Your task to perform on an android device: Search for Italian restaurants on Maps Image 0: 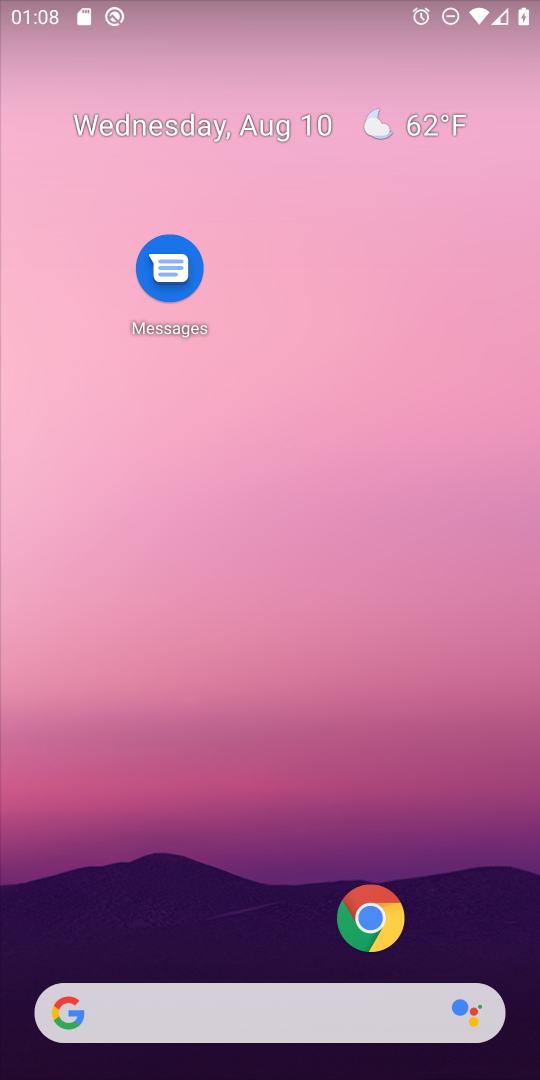
Step 0: drag from (273, 822) to (331, 184)
Your task to perform on an android device: Search for Italian restaurants on Maps Image 1: 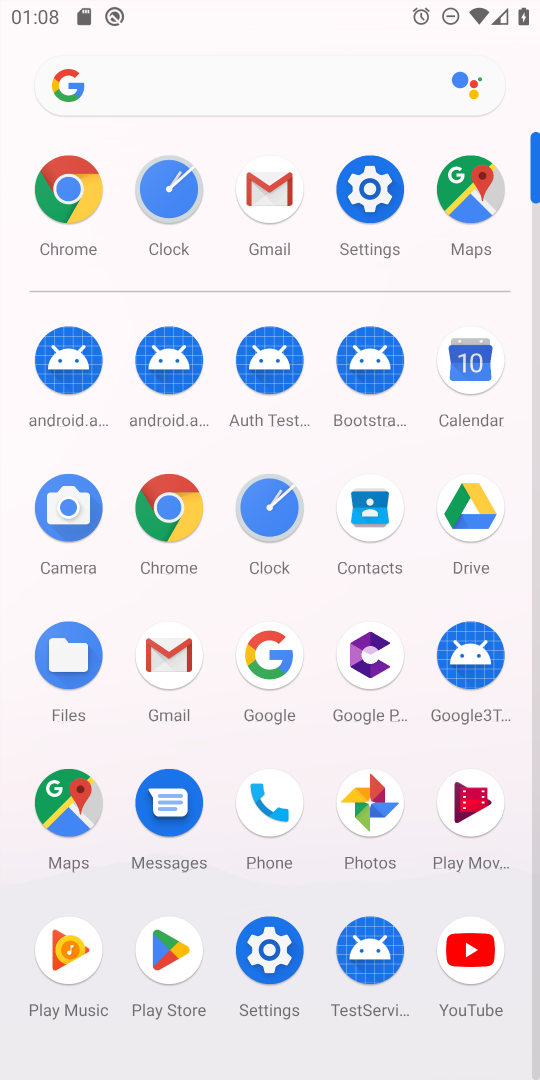
Step 1: click (75, 807)
Your task to perform on an android device: Search for Italian restaurants on Maps Image 2: 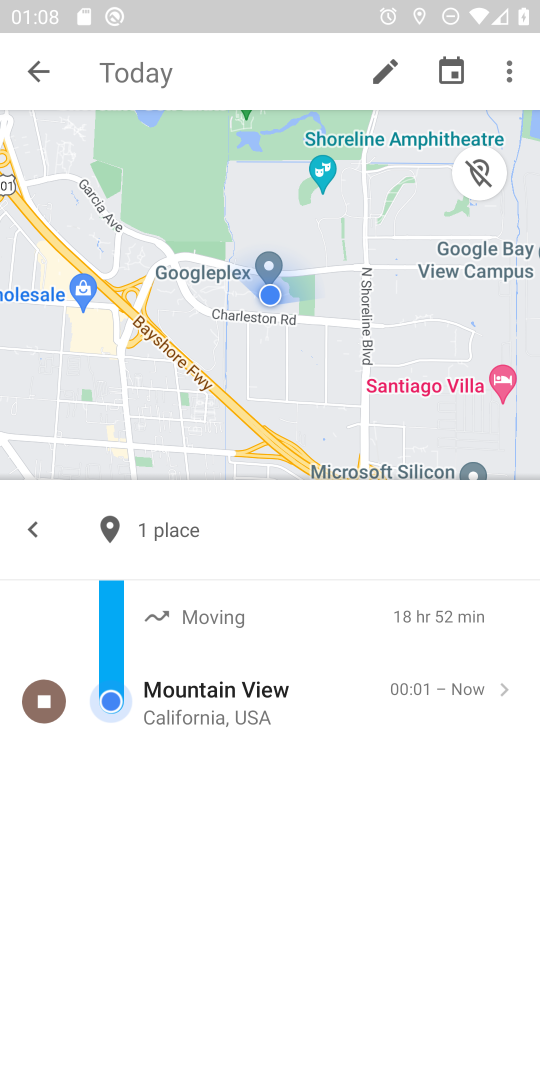
Step 2: click (43, 68)
Your task to perform on an android device: Search for Italian restaurants on Maps Image 3: 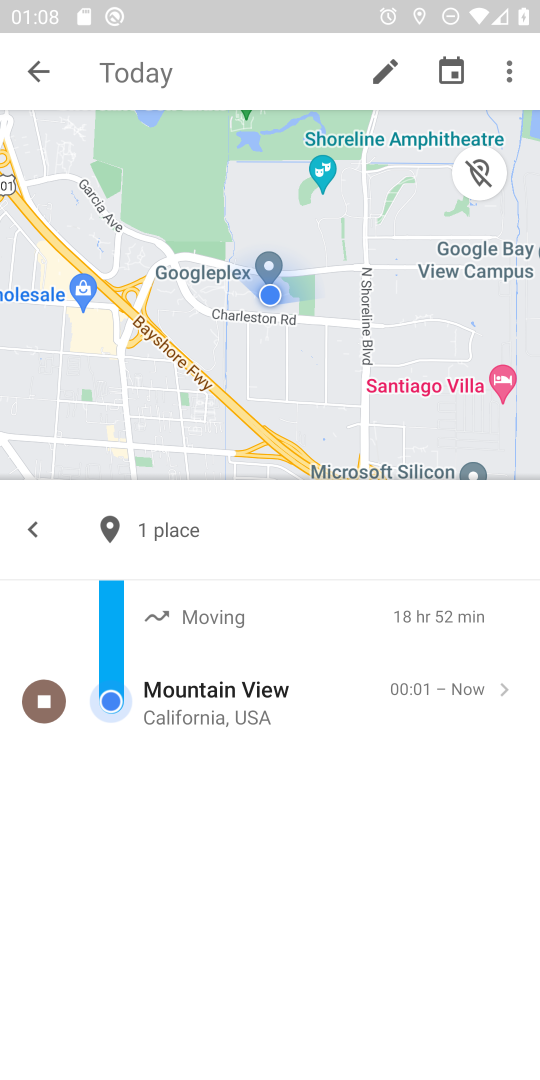
Step 3: press back button
Your task to perform on an android device: Search for Italian restaurants on Maps Image 4: 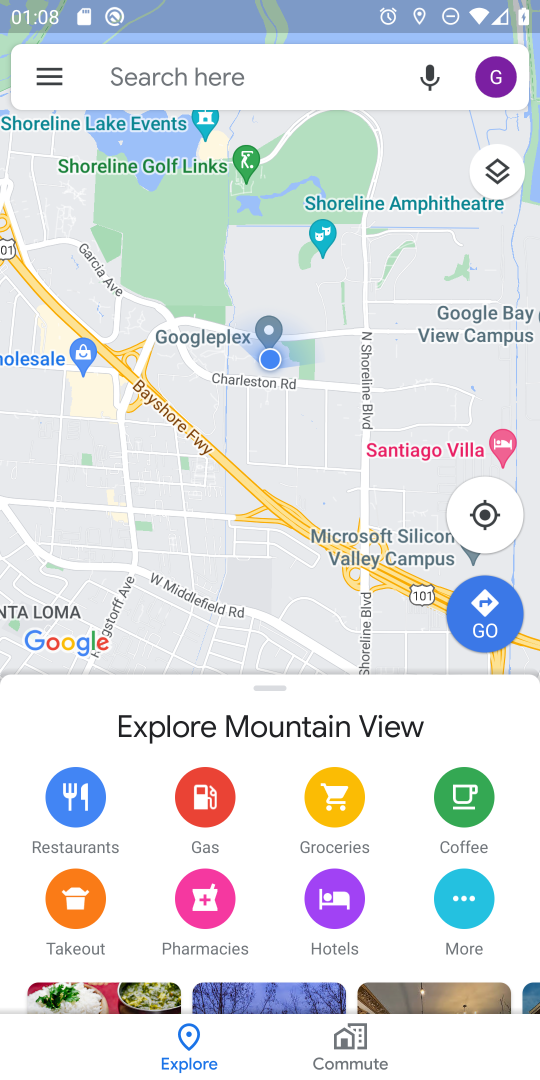
Step 4: click (303, 85)
Your task to perform on an android device: Search for Italian restaurants on Maps Image 5: 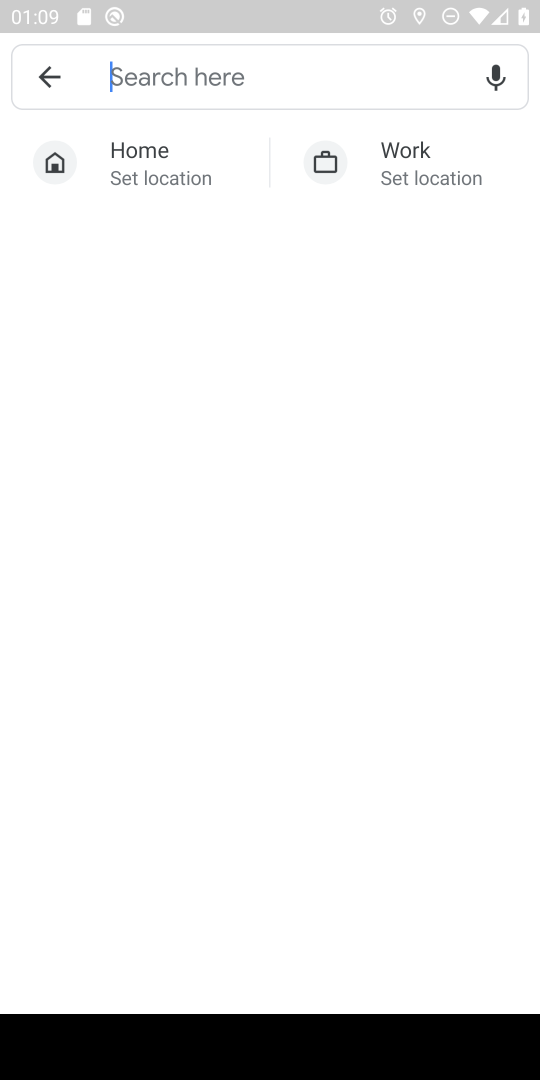
Step 5: type "Italian restaurants"
Your task to perform on an android device: Search for Italian restaurants on Maps Image 6: 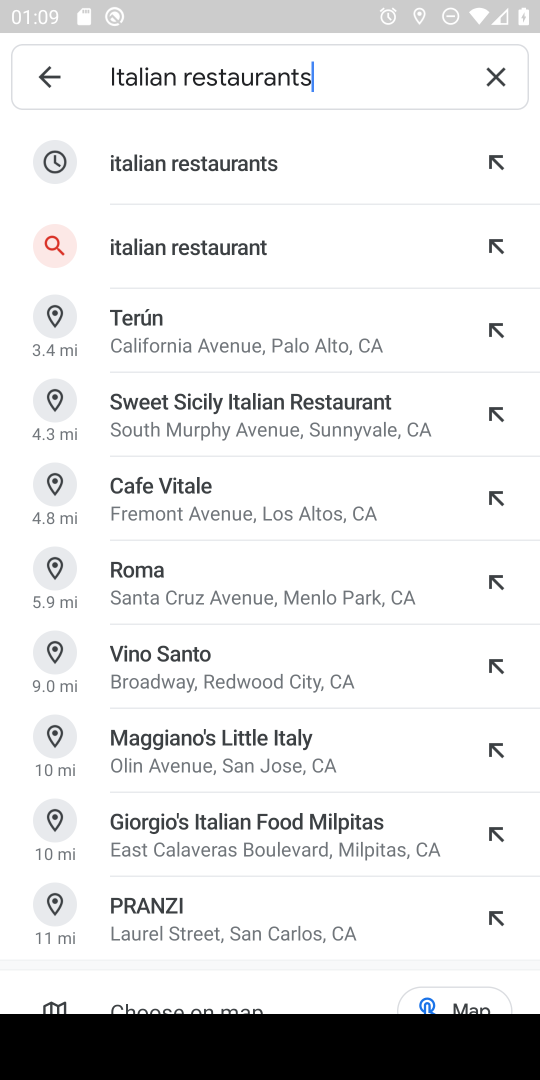
Step 6: click (266, 178)
Your task to perform on an android device: Search for Italian restaurants on Maps Image 7: 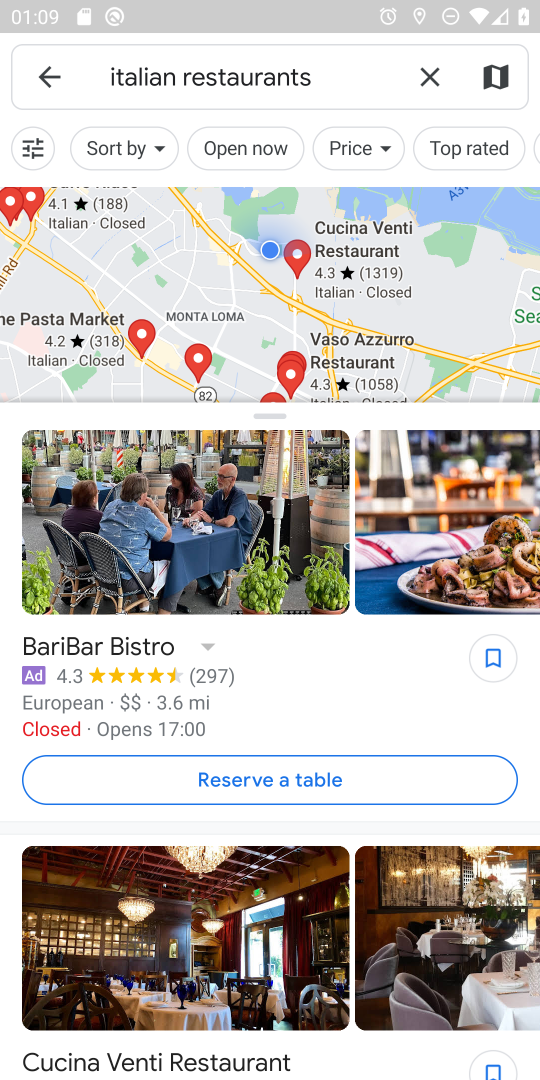
Step 7: task complete